Your task to perform on an android device: open a bookmark in the chrome app Image 0: 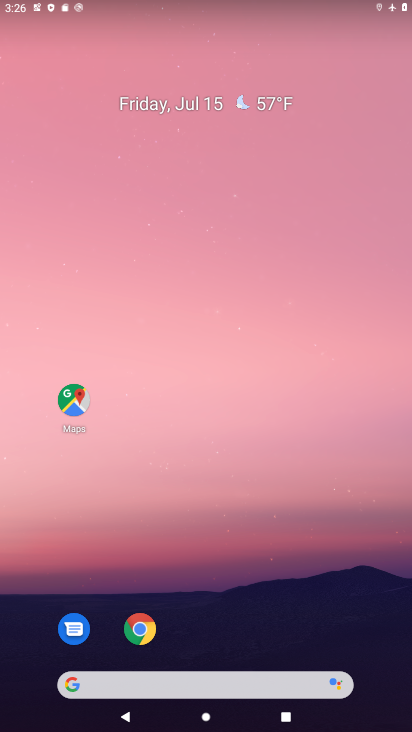
Step 0: drag from (268, 687) to (178, 166)
Your task to perform on an android device: open a bookmark in the chrome app Image 1: 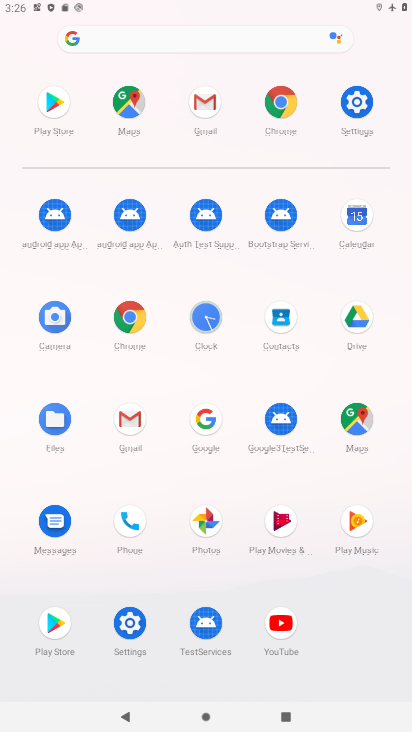
Step 1: click (128, 325)
Your task to perform on an android device: open a bookmark in the chrome app Image 2: 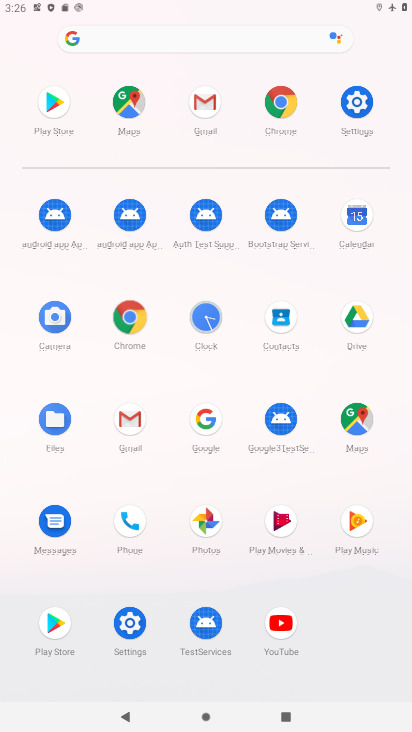
Step 2: click (127, 324)
Your task to perform on an android device: open a bookmark in the chrome app Image 3: 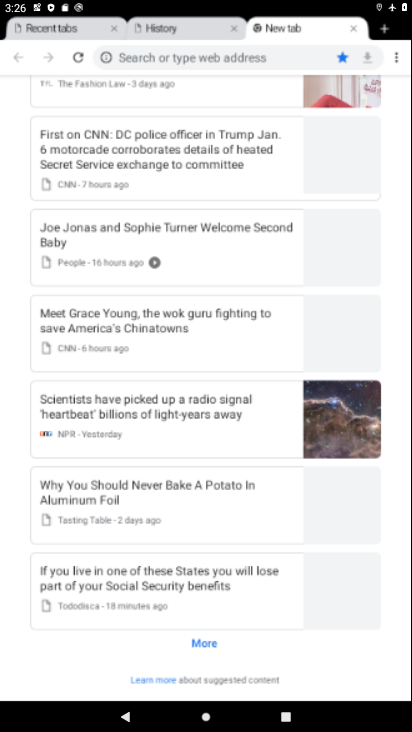
Step 3: click (127, 324)
Your task to perform on an android device: open a bookmark in the chrome app Image 4: 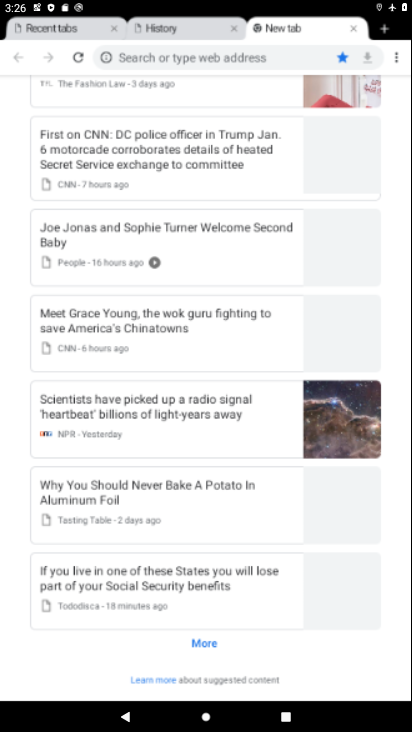
Step 4: click (127, 324)
Your task to perform on an android device: open a bookmark in the chrome app Image 5: 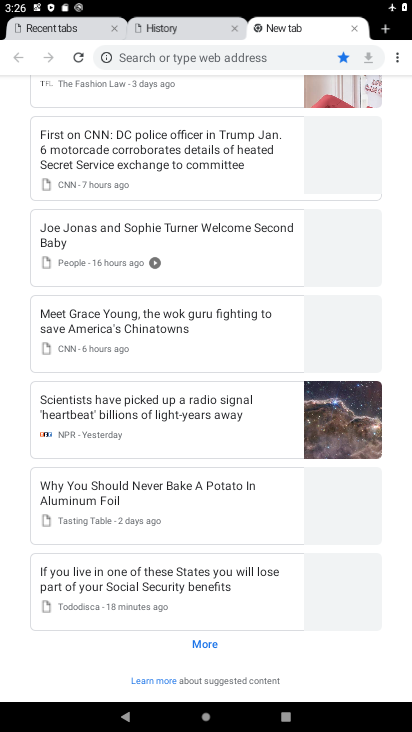
Step 5: press back button
Your task to perform on an android device: open a bookmark in the chrome app Image 6: 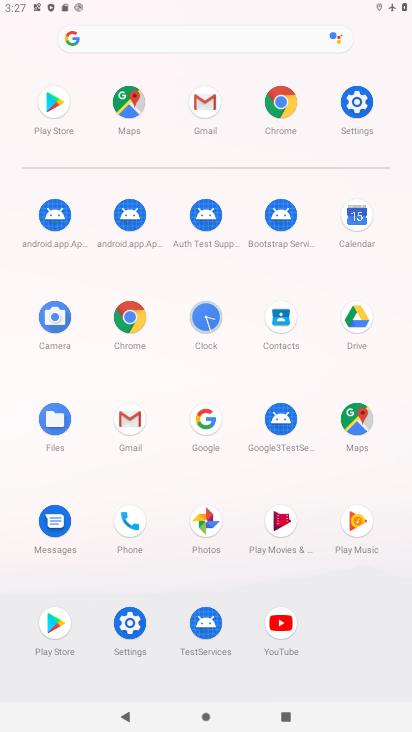
Step 6: click (283, 100)
Your task to perform on an android device: open a bookmark in the chrome app Image 7: 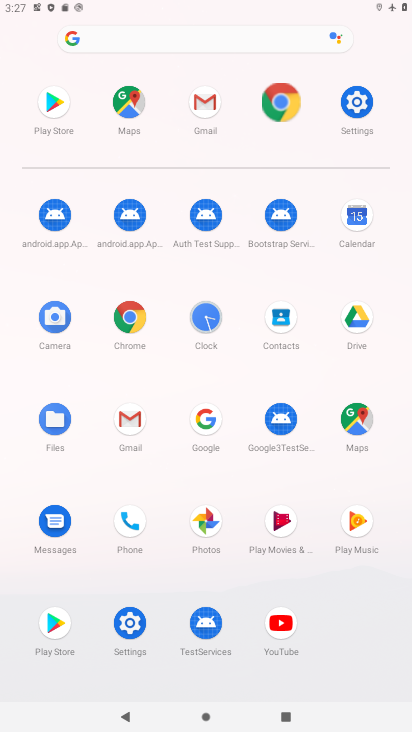
Step 7: click (285, 101)
Your task to perform on an android device: open a bookmark in the chrome app Image 8: 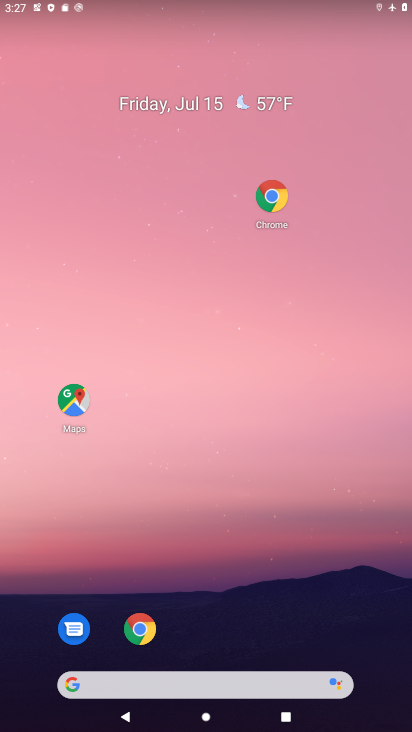
Step 8: drag from (297, 439) to (266, 60)
Your task to perform on an android device: open a bookmark in the chrome app Image 9: 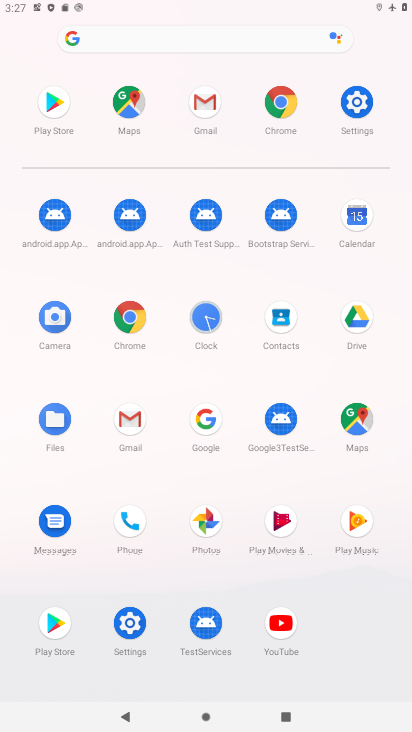
Step 9: click (286, 112)
Your task to perform on an android device: open a bookmark in the chrome app Image 10: 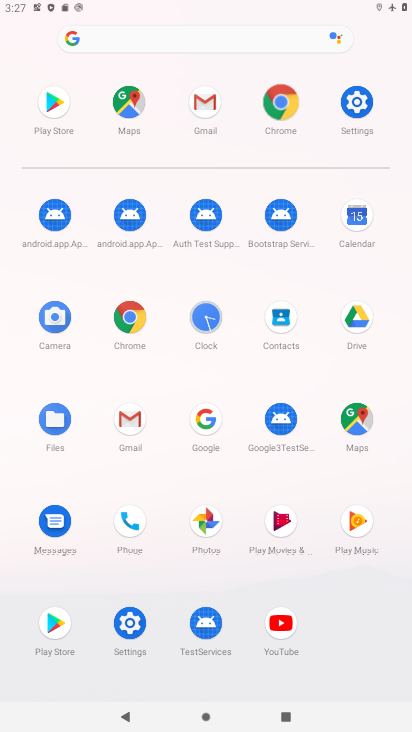
Step 10: click (287, 111)
Your task to perform on an android device: open a bookmark in the chrome app Image 11: 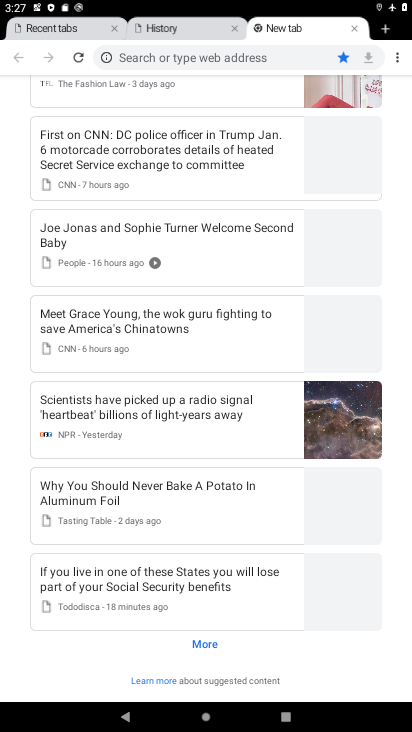
Step 11: drag from (393, 65) to (300, 113)
Your task to perform on an android device: open a bookmark in the chrome app Image 12: 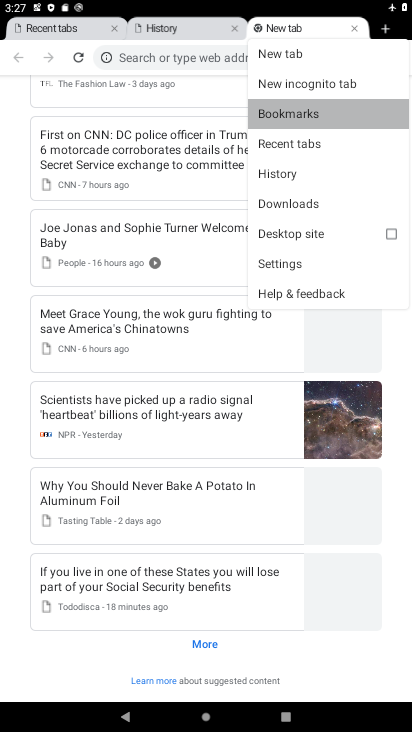
Step 12: click (303, 114)
Your task to perform on an android device: open a bookmark in the chrome app Image 13: 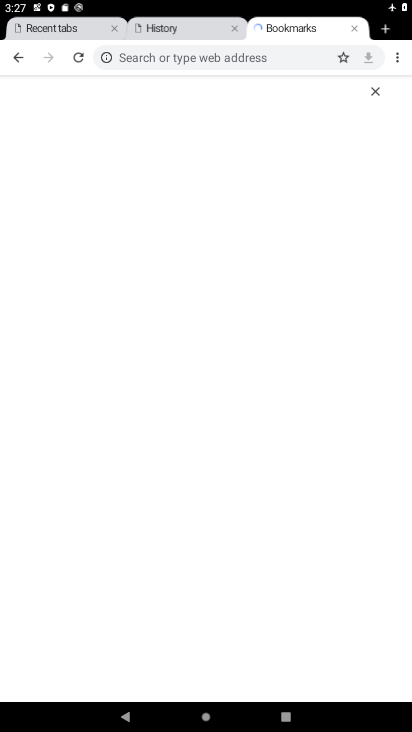
Step 13: click (305, 114)
Your task to perform on an android device: open a bookmark in the chrome app Image 14: 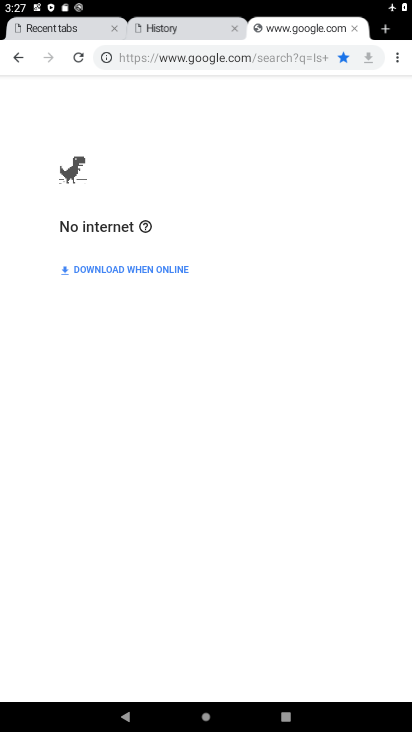
Step 14: task complete